Your task to perform on an android device: turn off javascript in the chrome app Image 0: 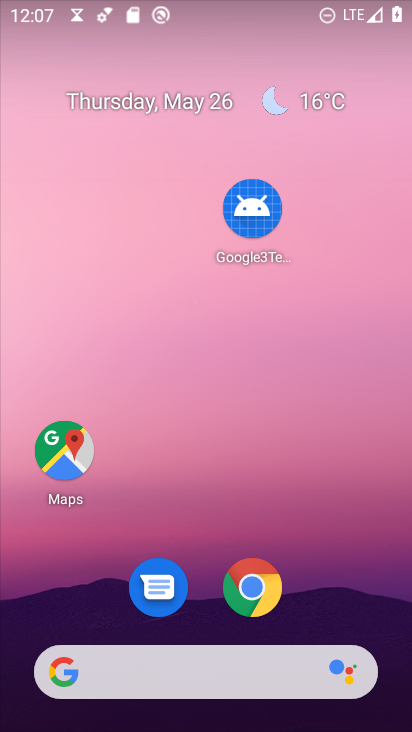
Step 0: click (256, 580)
Your task to perform on an android device: turn off javascript in the chrome app Image 1: 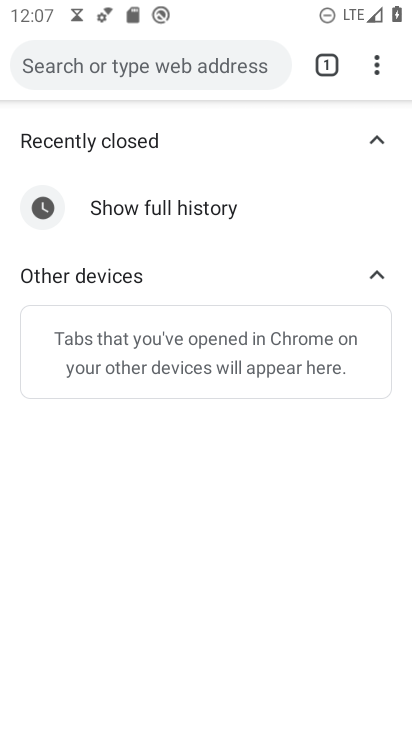
Step 1: drag from (374, 56) to (168, 551)
Your task to perform on an android device: turn off javascript in the chrome app Image 2: 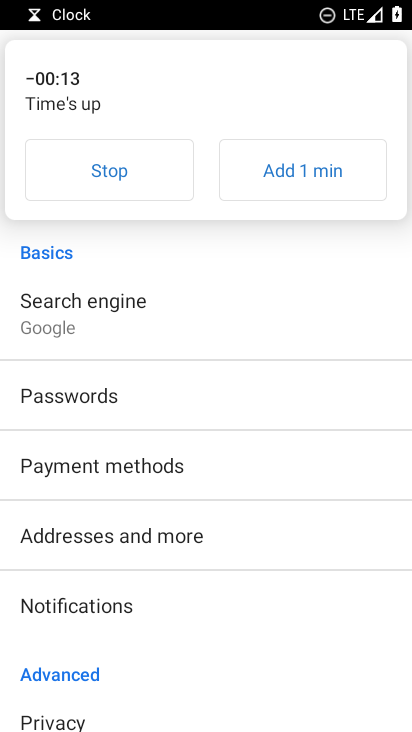
Step 2: click (139, 171)
Your task to perform on an android device: turn off javascript in the chrome app Image 3: 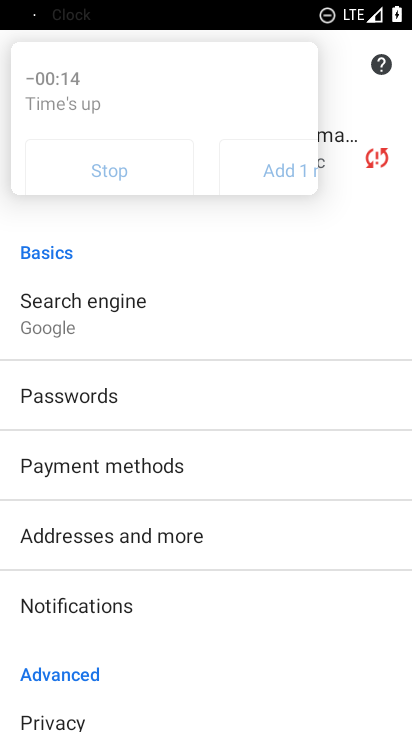
Step 3: drag from (162, 589) to (201, 110)
Your task to perform on an android device: turn off javascript in the chrome app Image 4: 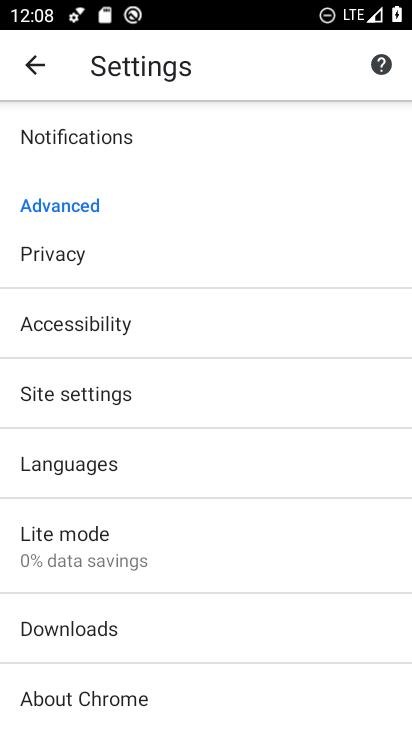
Step 4: click (133, 407)
Your task to perform on an android device: turn off javascript in the chrome app Image 5: 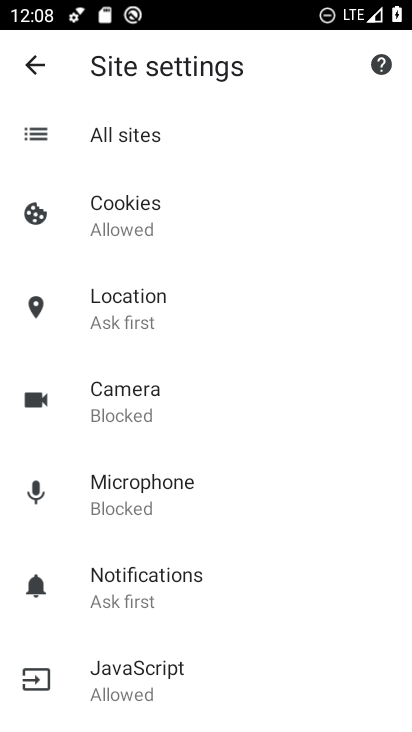
Step 5: click (156, 663)
Your task to perform on an android device: turn off javascript in the chrome app Image 6: 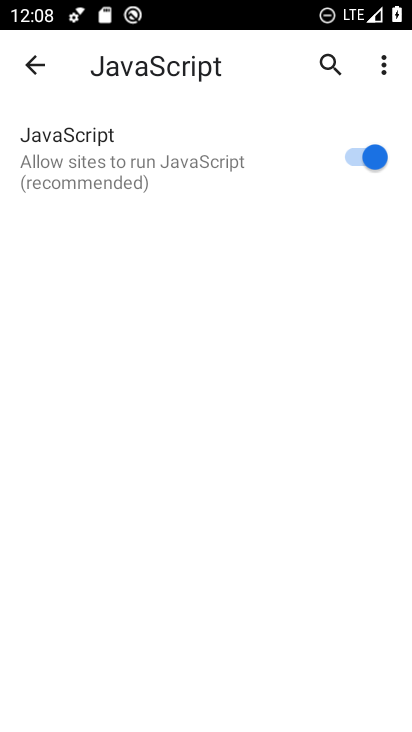
Step 6: click (365, 151)
Your task to perform on an android device: turn off javascript in the chrome app Image 7: 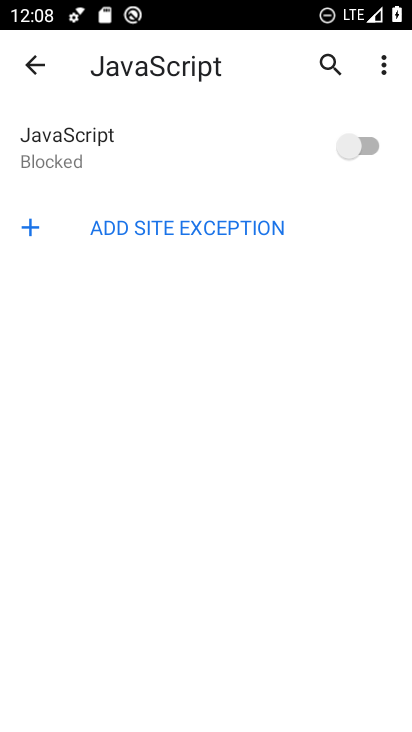
Step 7: task complete